Your task to perform on an android device: change the clock style Image 0: 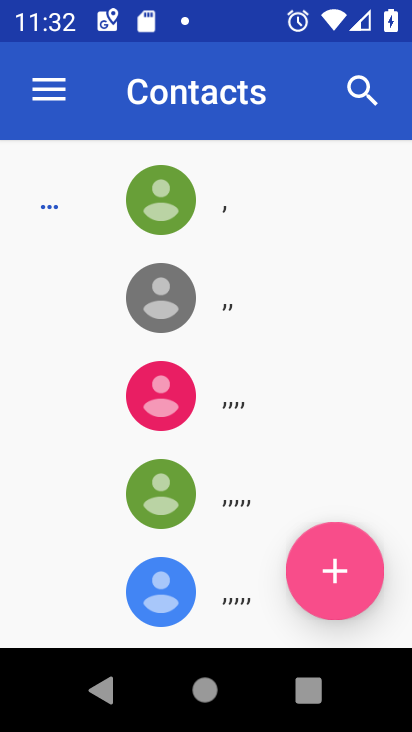
Step 0: press home button
Your task to perform on an android device: change the clock style Image 1: 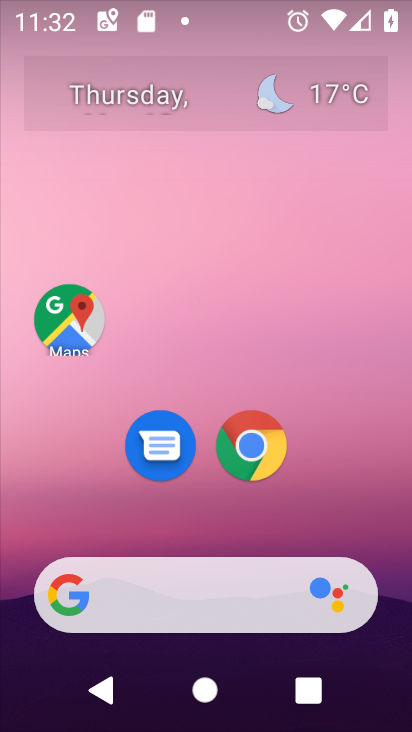
Step 1: drag from (237, 501) to (217, 214)
Your task to perform on an android device: change the clock style Image 2: 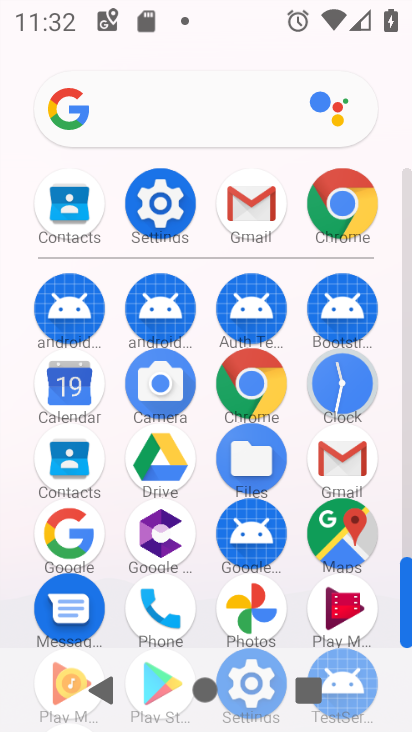
Step 2: click (358, 374)
Your task to perform on an android device: change the clock style Image 3: 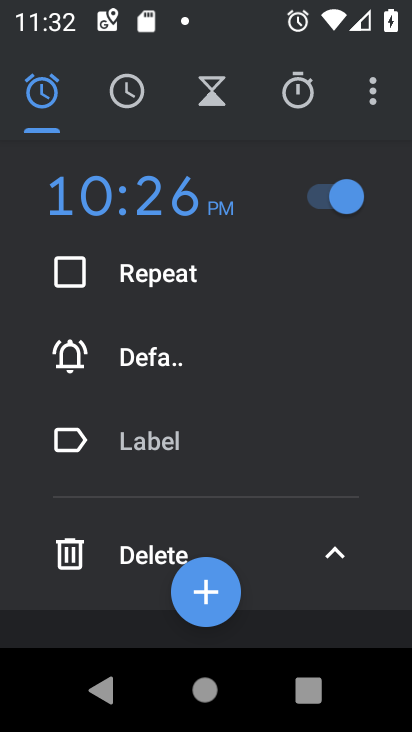
Step 3: click (375, 83)
Your task to perform on an android device: change the clock style Image 4: 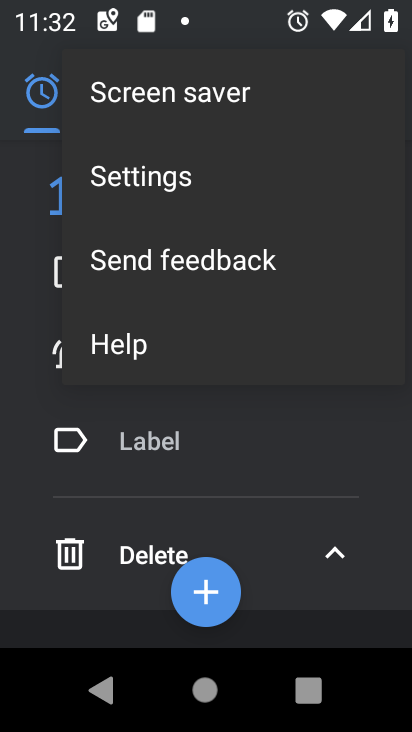
Step 4: click (158, 165)
Your task to perform on an android device: change the clock style Image 5: 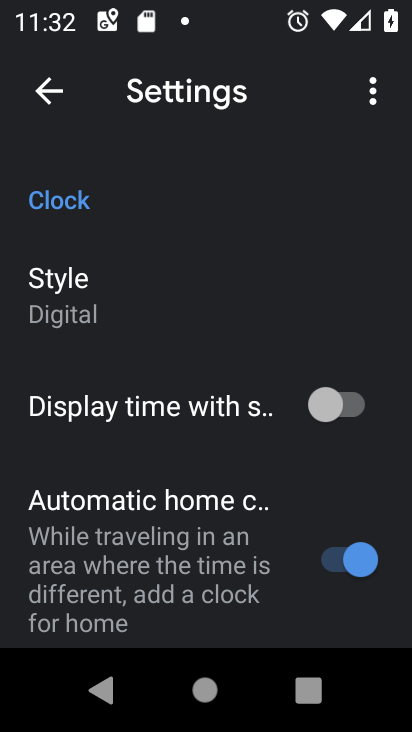
Step 5: click (159, 288)
Your task to perform on an android device: change the clock style Image 6: 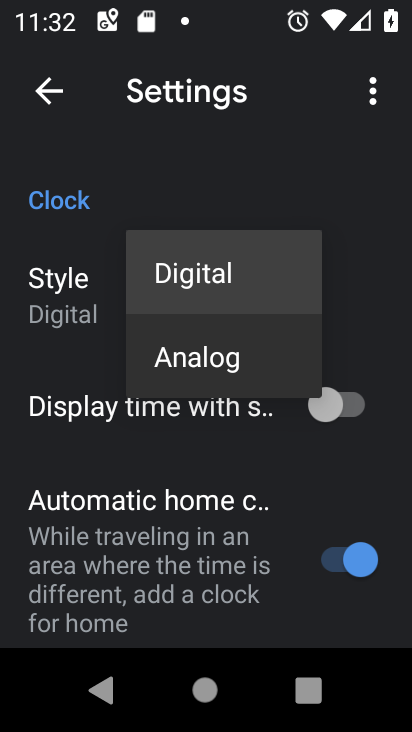
Step 6: click (199, 377)
Your task to perform on an android device: change the clock style Image 7: 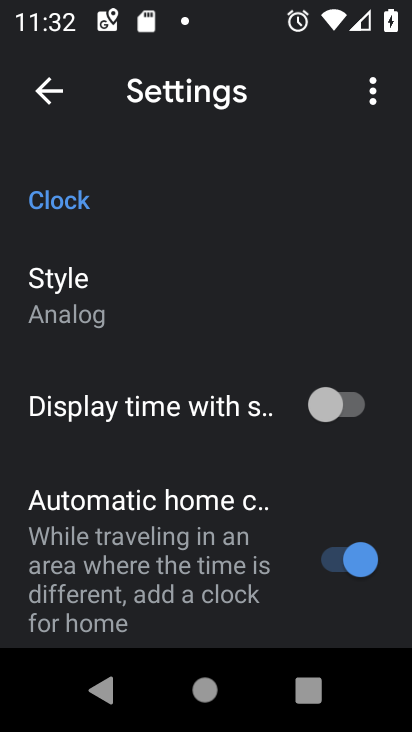
Step 7: task complete